Your task to perform on an android device: Open ESPN.com Image 0: 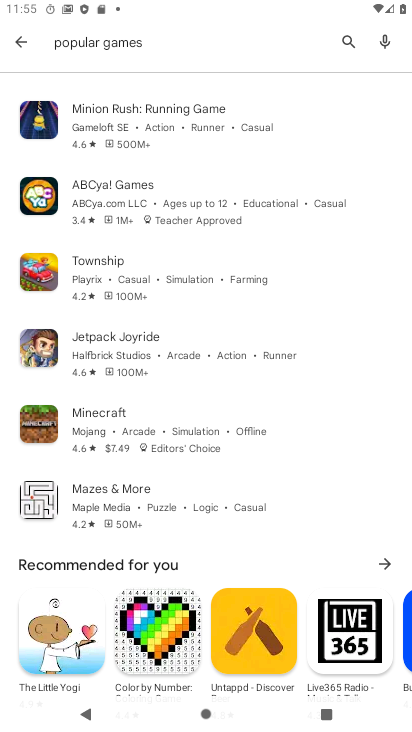
Step 0: press back button
Your task to perform on an android device: Open ESPN.com Image 1: 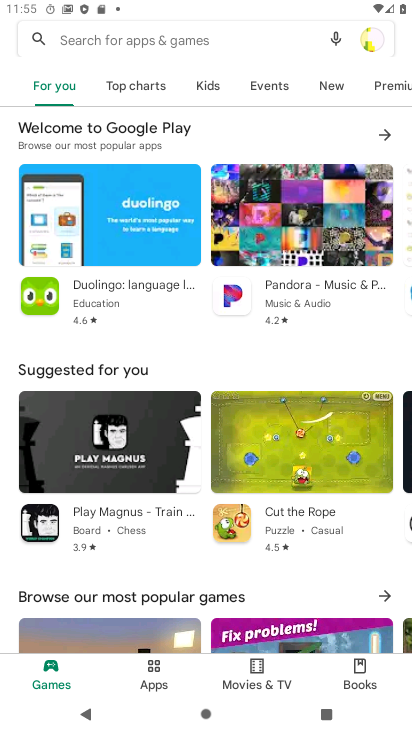
Step 1: press back button
Your task to perform on an android device: Open ESPN.com Image 2: 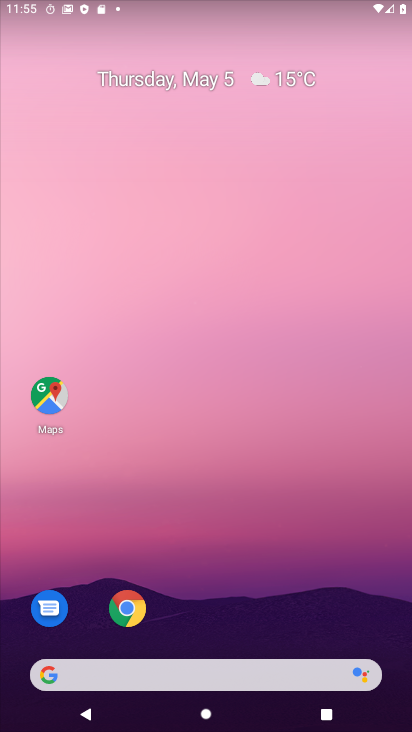
Step 2: click (123, 606)
Your task to perform on an android device: Open ESPN.com Image 3: 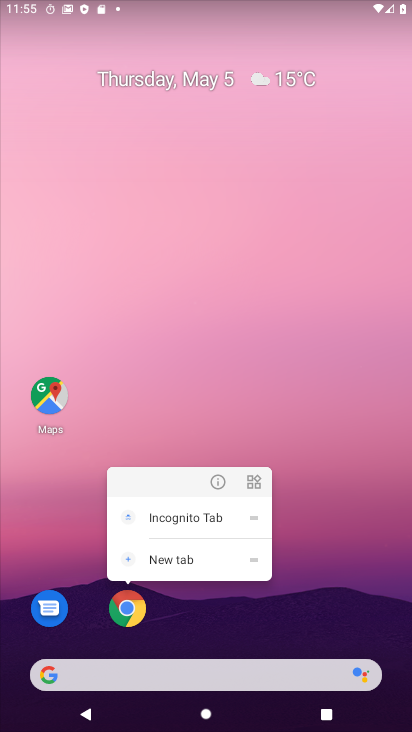
Step 3: click (123, 606)
Your task to perform on an android device: Open ESPN.com Image 4: 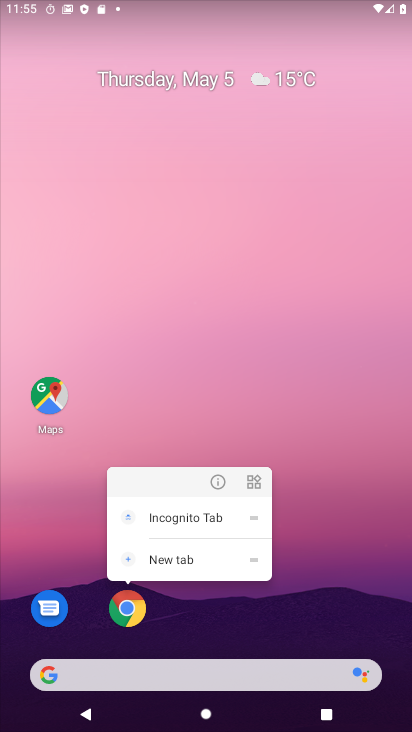
Step 4: click (125, 609)
Your task to perform on an android device: Open ESPN.com Image 5: 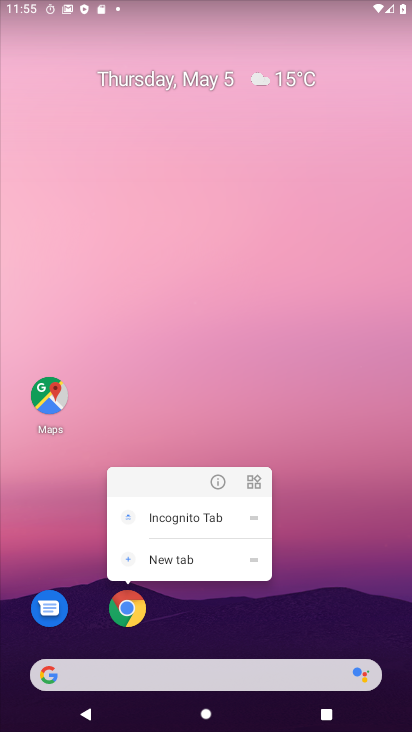
Step 5: click (129, 610)
Your task to perform on an android device: Open ESPN.com Image 6: 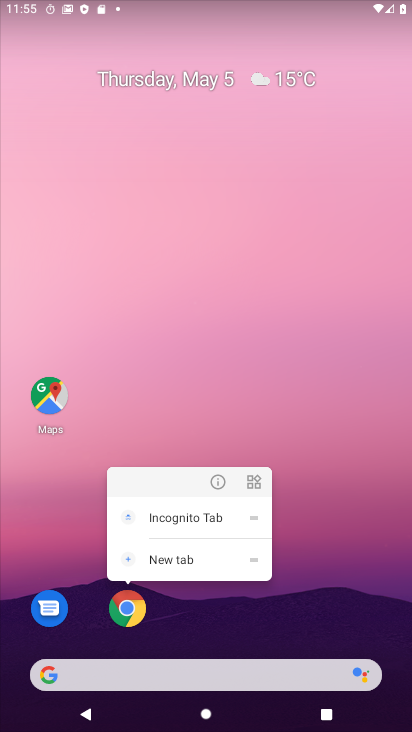
Step 6: click (129, 610)
Your task to perform on an android device: Open ESPN.com Image 7: 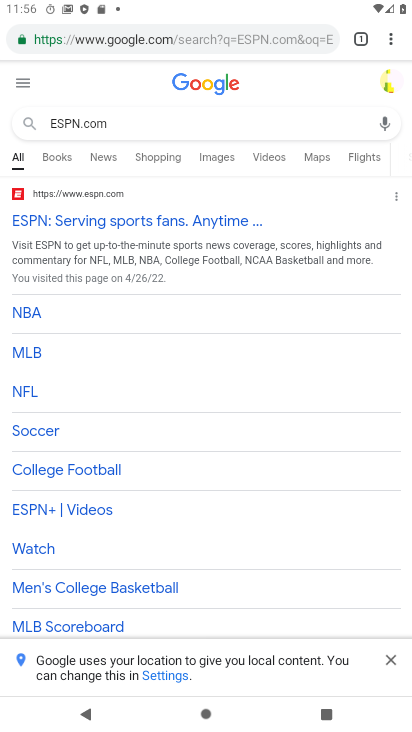
Step 7: task complete